Your task to perform on an android device: move a message to another label in the gmail app Image 0: 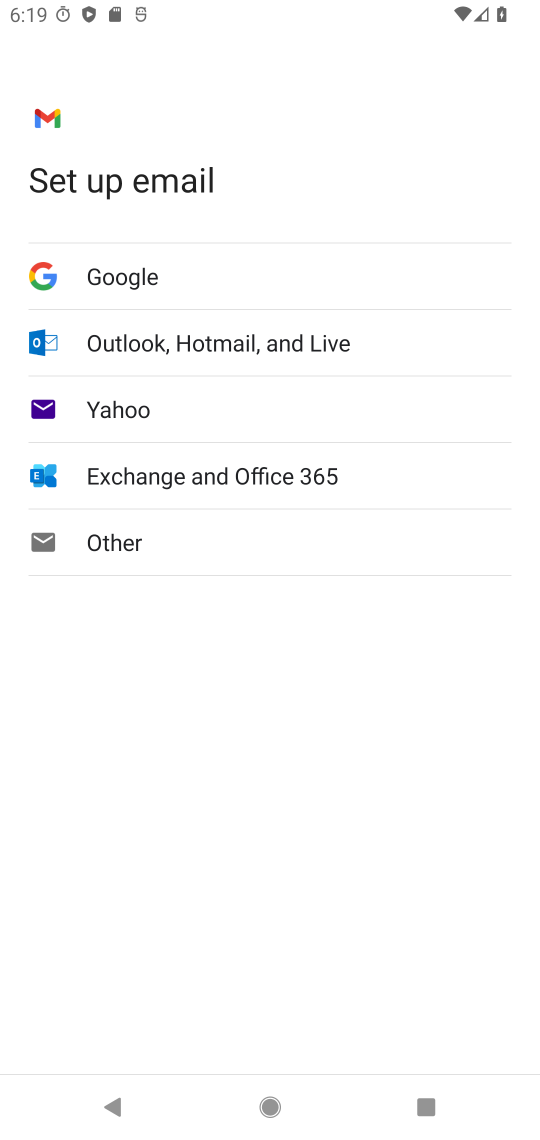
Step 0: press home button
Your task to perform on an android device: move a message to another label in the gmail app Image 1: 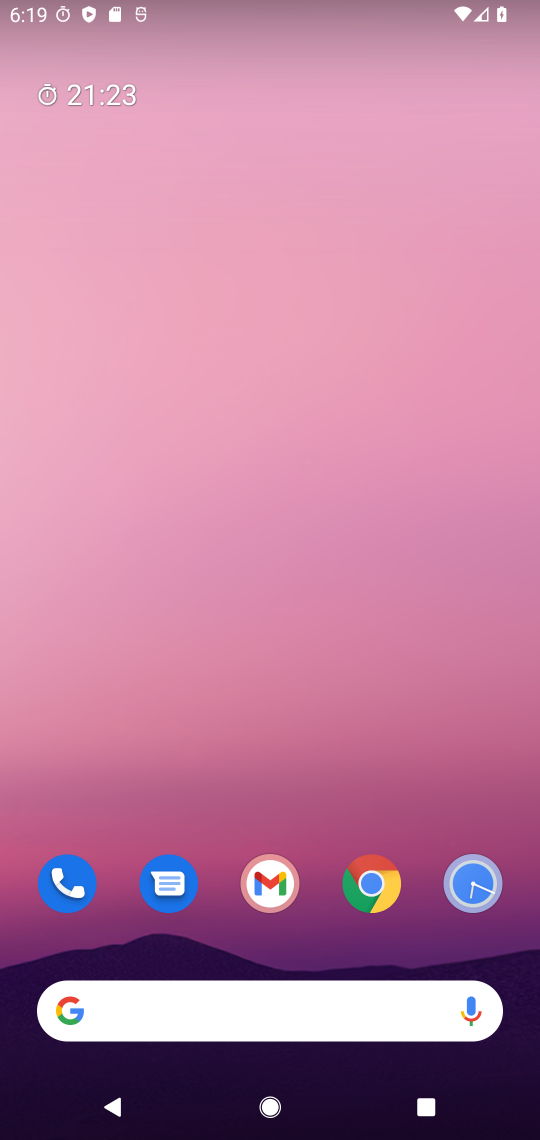
Step 1: click (257, 905)
Your task to perform on an android device: move a message to another label in the gmail app Image 2: 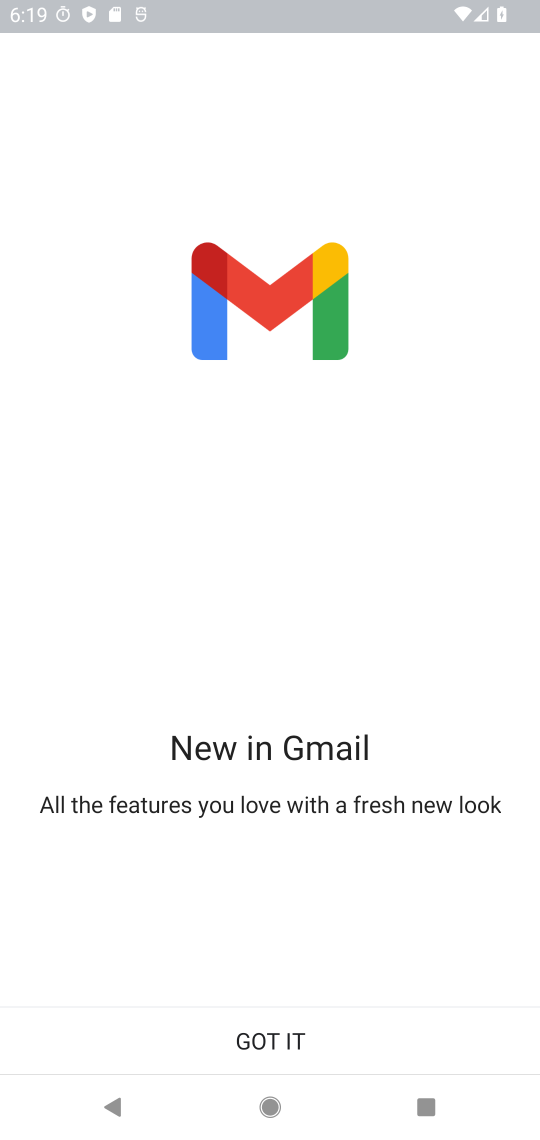
Step 2: click (343, 1032)
Your task to perform on an android device: move a message to another label in the gmail app Image 3: 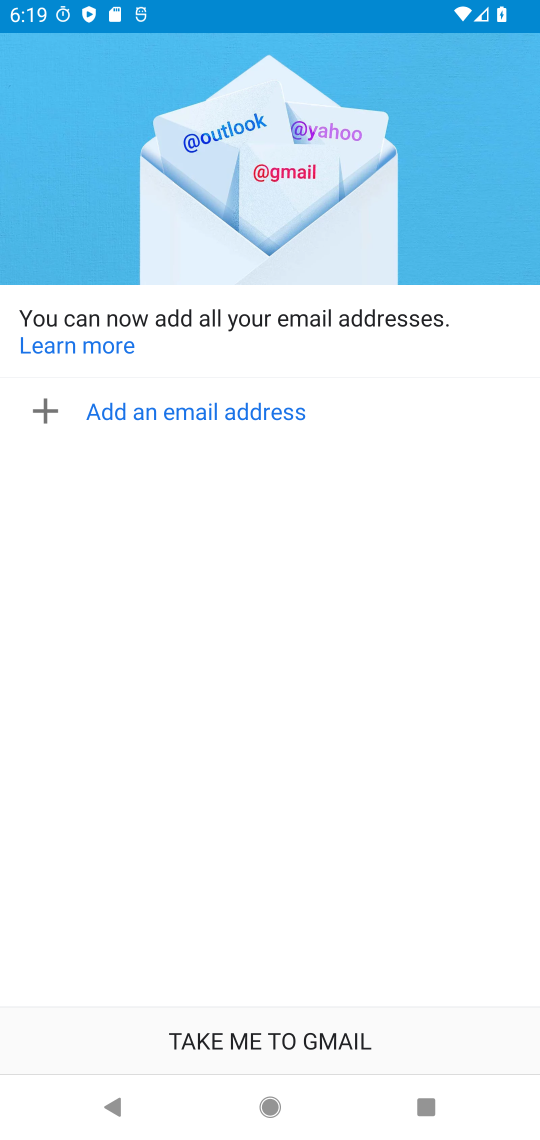
Step 3: click (345, 1023)
Your task to perform on an android device: move a message to another label in the gmail app Image 4: 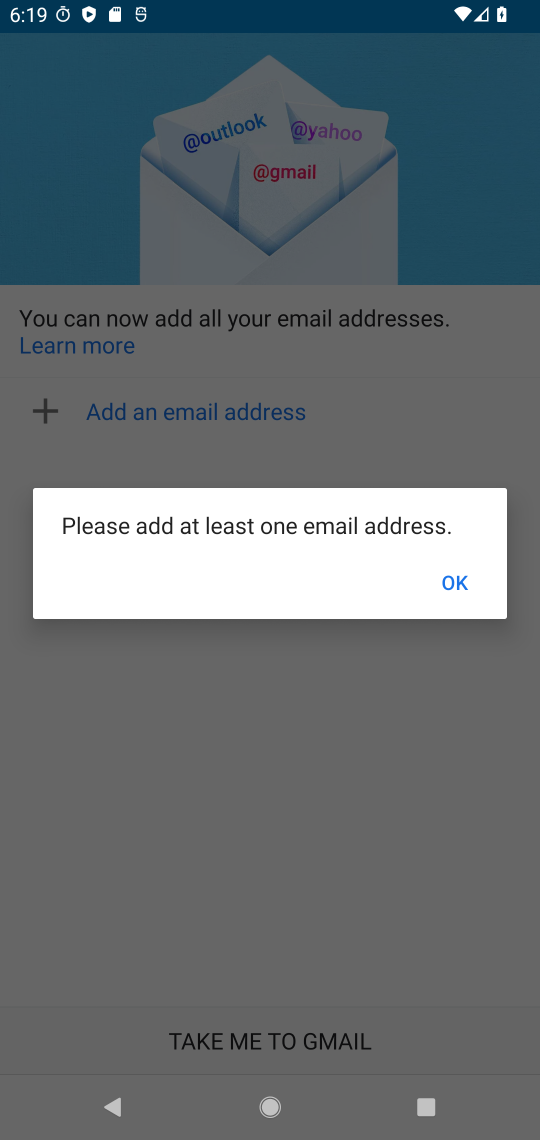
Step 4: click (460, 560)
Your task to perform on an android device: move a message to another label in the gmail app Image 5: 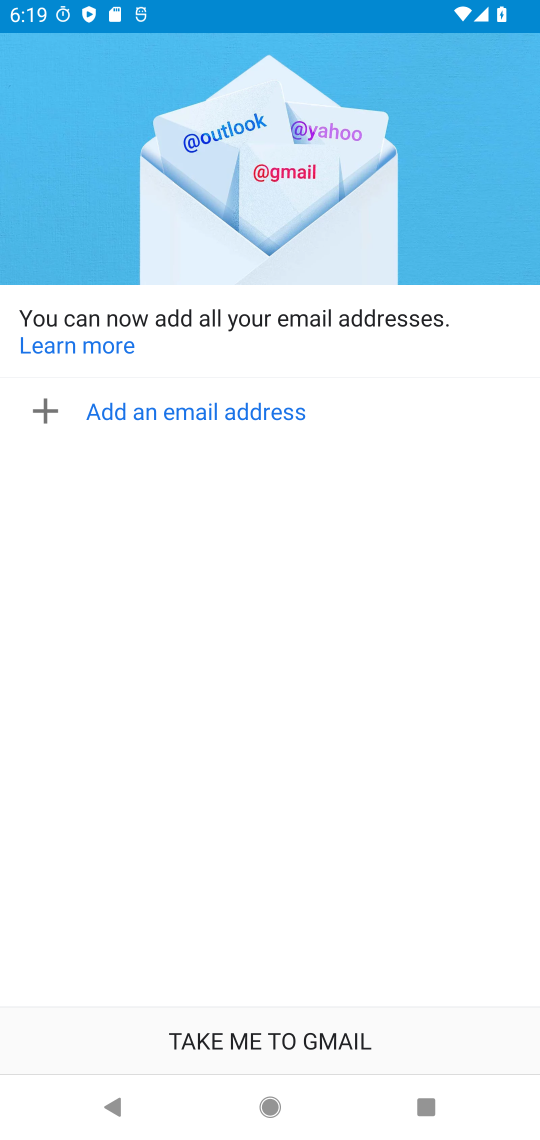
Step 5: task complete